Your task to perform on an android device: read, delete, or share a saved page in the chrome app Image 0: 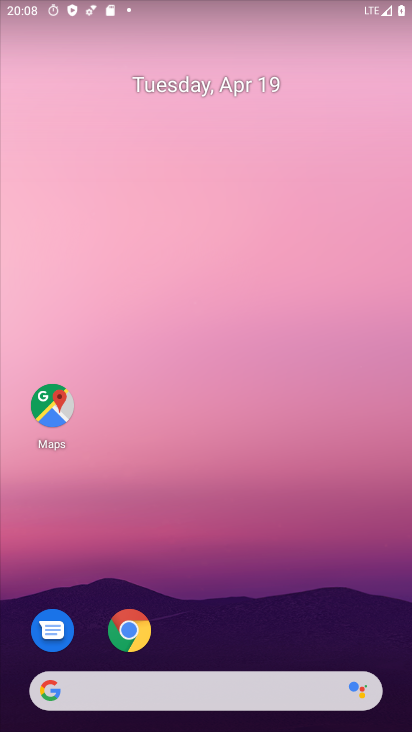
Step 0: drag from (201, 653) to (173, 37)
Your task to perform on an android device: read, delete, or share a saved page in the chrome app Image 1: 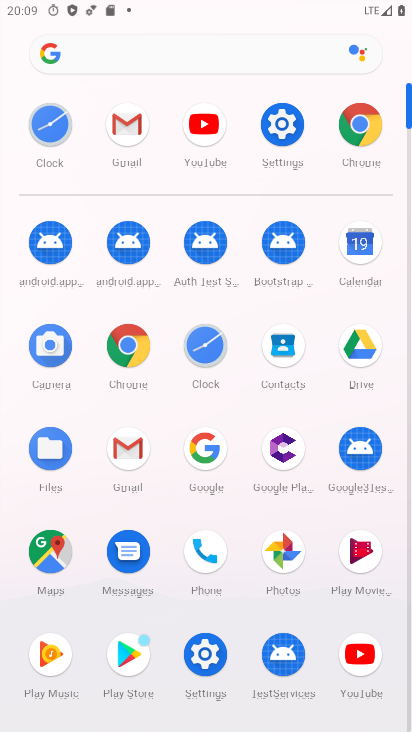
Step 1: click (355, 124)
Your task to perform on an android device: read, delete, or share a saved page in the chrome app Image 2: 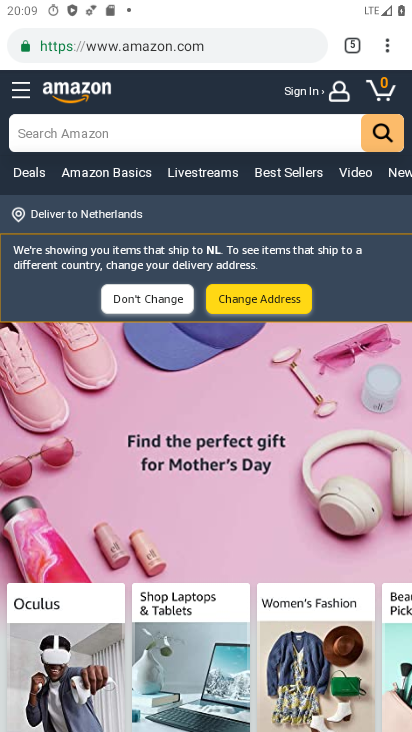
Step 2: click (387, 41)
Your task to perform on an android device: read, delete, or share a saved page in the chrome app Image 3: 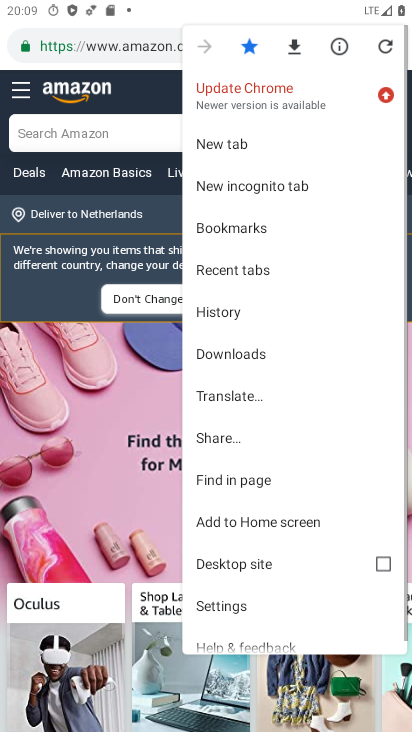
Step 3: task complete